Your task to perform on an android device: Open Wikipedia Image 0: 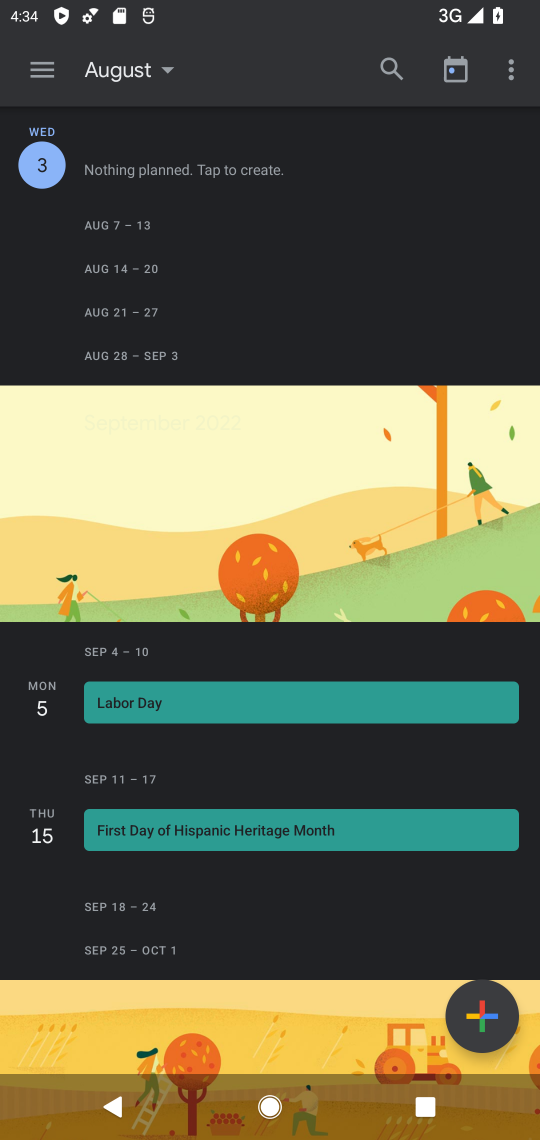
Step 0: task complete